Your task to perform on an android device: turn on notifications settings in the gmail app Image 0: 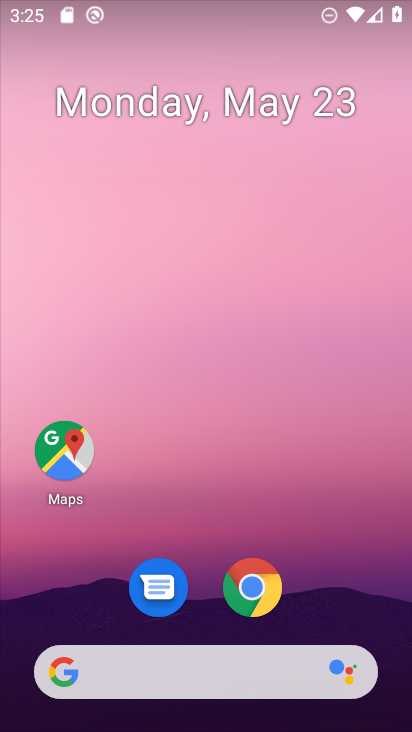
Step 0: drag from (206, 615) to (171, 0)
Your task to perform on an android device: turn on notifications settings in the gmail app Image 1: 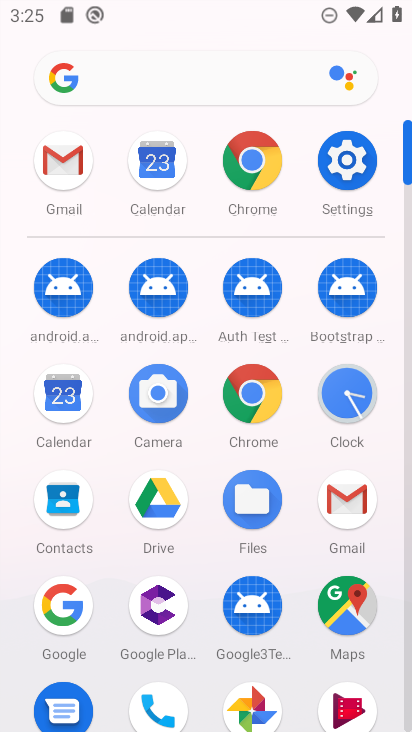
Step 1: click (348, 495)
Your task to perform on an android device: turn on notifications settings in the gmail app Image 2: 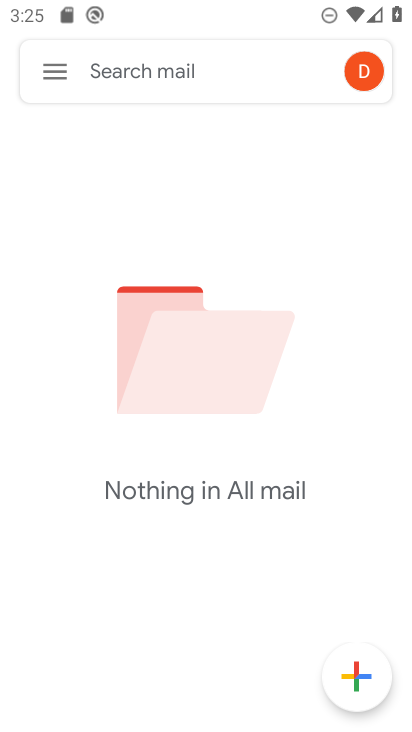
Step 2: click (58, 69)
Your task to perform on an android device: turn on notifications settings in the gmail app Image 3: 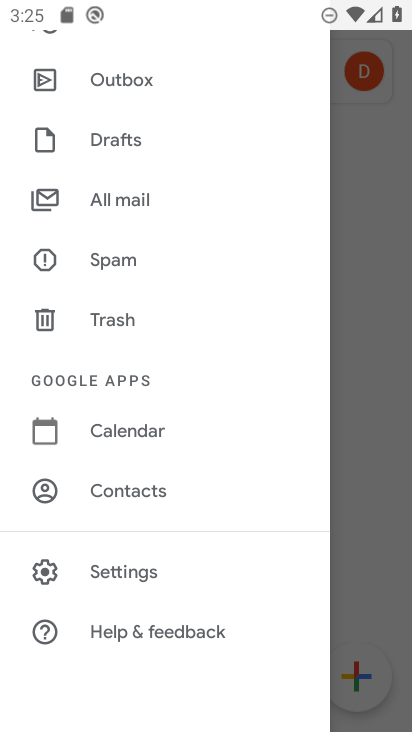
Step 3: click (133, 580)
Your task to perform on an android device: turn on notifications settings in the gmail app Image 4: 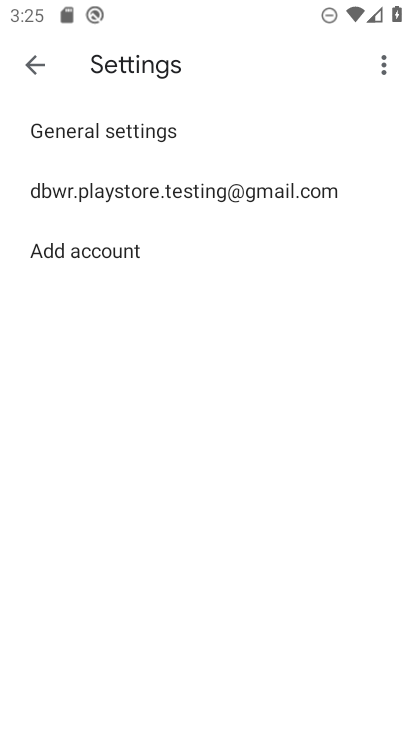
Step 4: click (126, 194)
Your task to perform on an android device: turn on notifications settings in the gmail app Image 5: 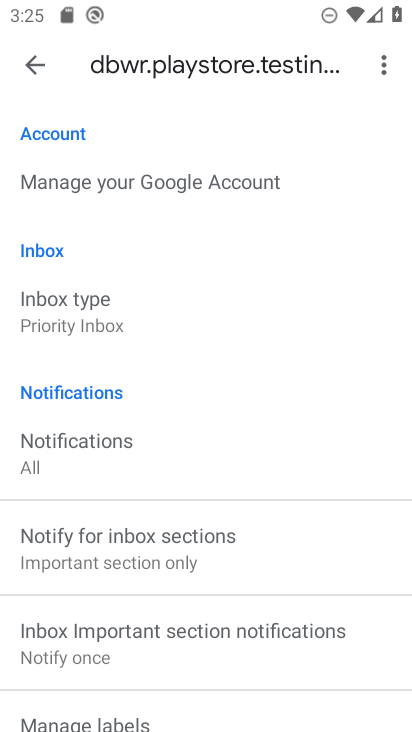
Step 5: click (24, 46)
Your task to perform on an android device: turn on notifications settings in the gmail app Image 6: 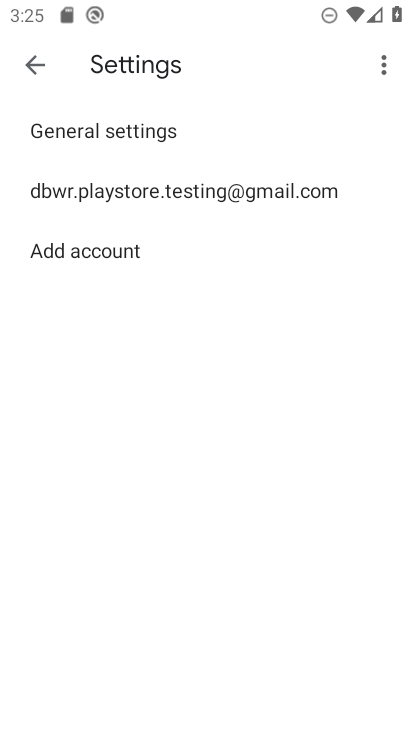
Step 6: click (92, 128)
Your task to perform on an android device: turn on notifications settings in the gmail app Image 7: 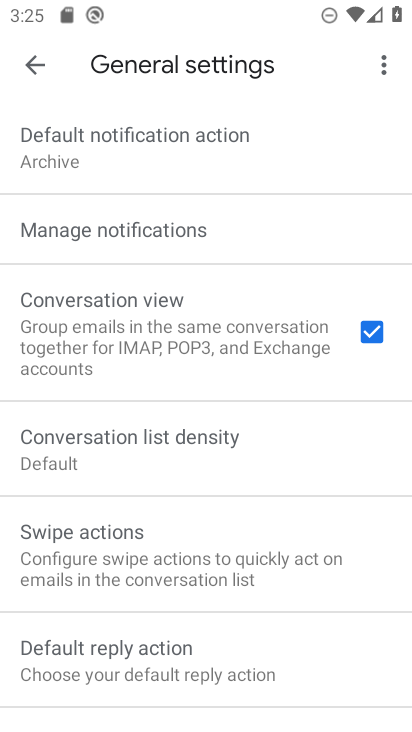
Step 7: click (105, 224)
Your task to perform on an android device: turn on notifications settings in the gmail app Image 8: 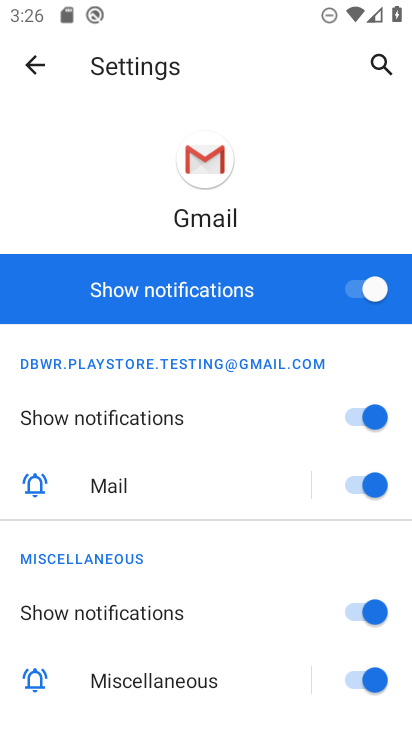
Step 8: task complete